Your task to perform on an android device: Open Yahoo.com Image 0: 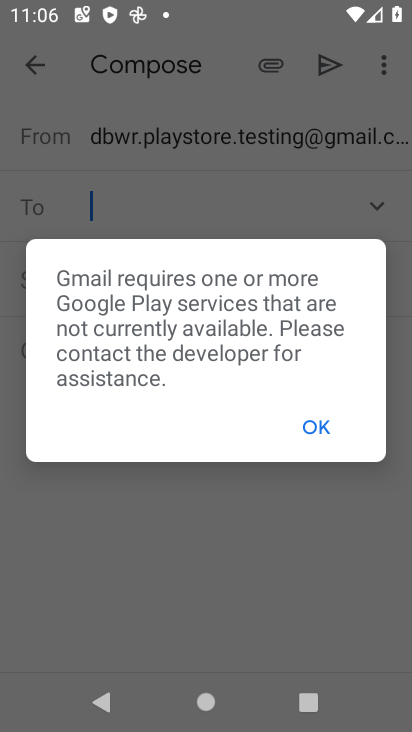
Step 0: click (317, 419)
Your task to perform on an android device: Open Yahoo.com Image 1: 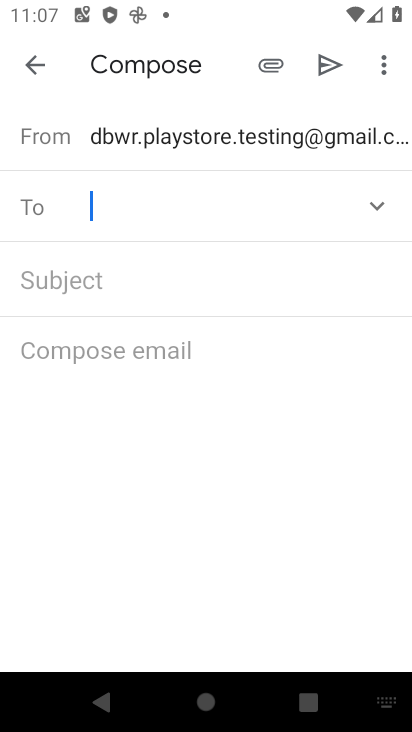
Step 1: click (211, 688)
Your task to perform on an android device: Open Yahoo.com Image 2: 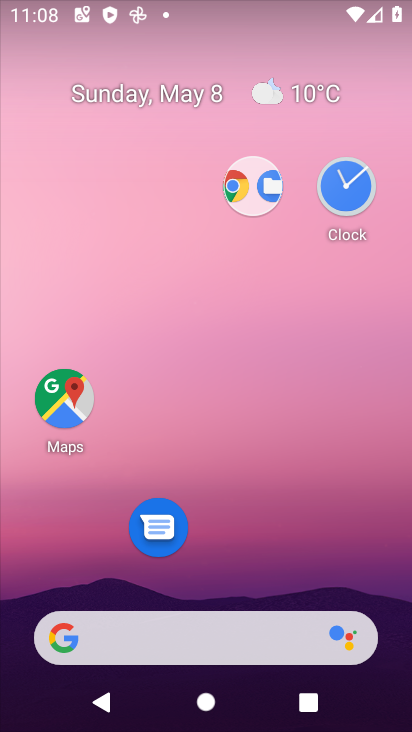
Step 2: drag from (319, 565) to (328, 45)
Your task to perform on an android device: Open Yahoo.com Image 3: 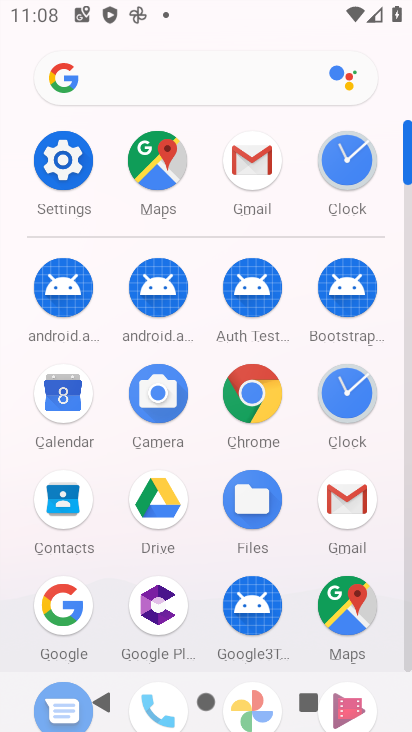
Step 3: click (252, 395)
Your task to perform on an android device: Open Yahoo.com Image 4: 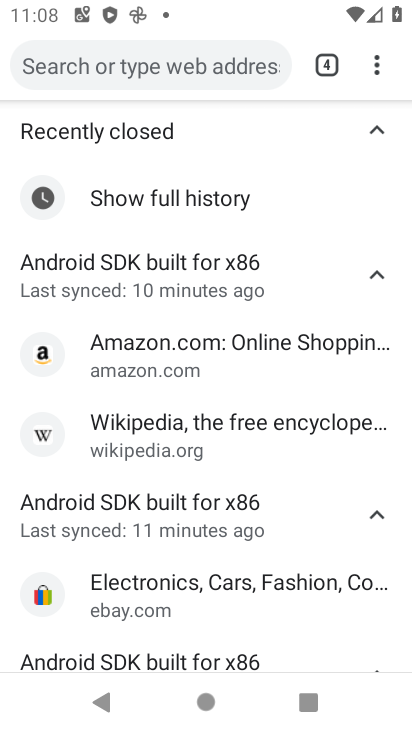
Step 4: click (92, 57)
Your task to perform on an android device: Open Yahoo.com Image 5: 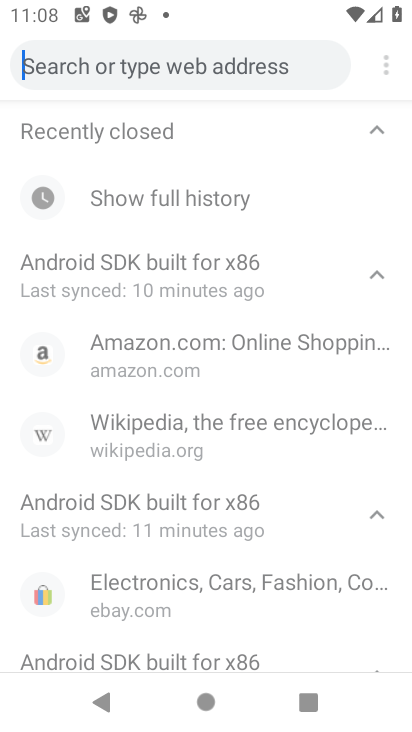
Step 5: click (92, 57)
Your task to perform on an android device: Open Yahoo.com Image 6: 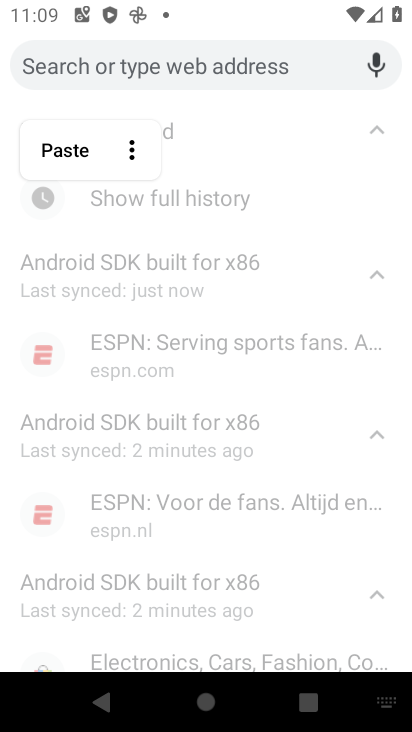
Step 6: type "yahoo.com"
Your task to perform on an android device: Open Yahoo.com Image 7: 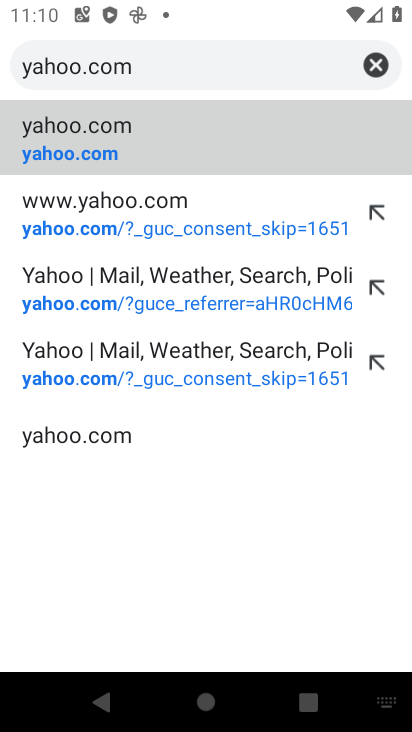
Step 7: click (63, 119)
Your task to perform on an android device: Open Yahoo.com Image 8: 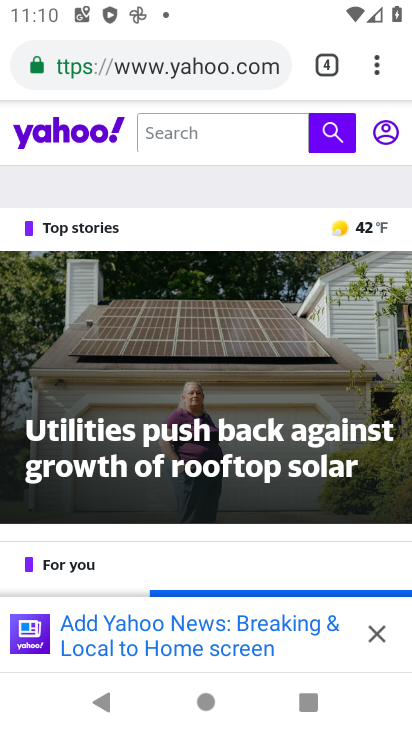
Step 8: click (79, 130)
Your task to perform on an android device: Open Yahoo.com Image 9: 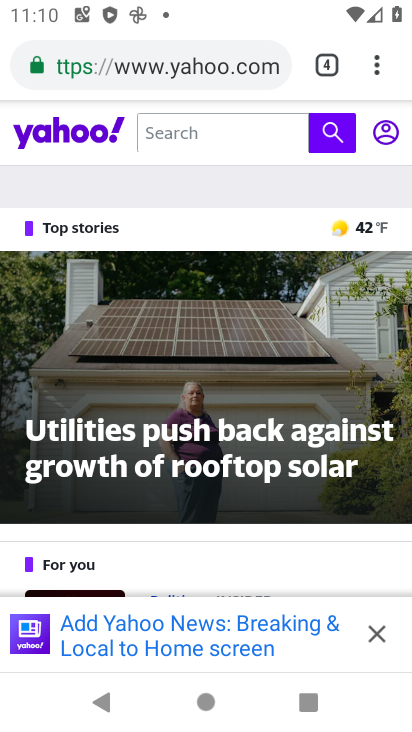
Step 9: task complete